Your task to perform on an android device: Open Yahoo.com Image 0: 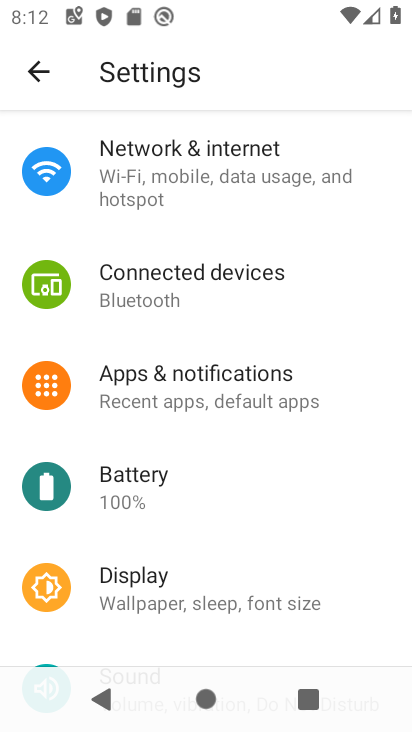
Step 0: press home button
Your task to perform on an android device: Open Yahoo.com Image 1: 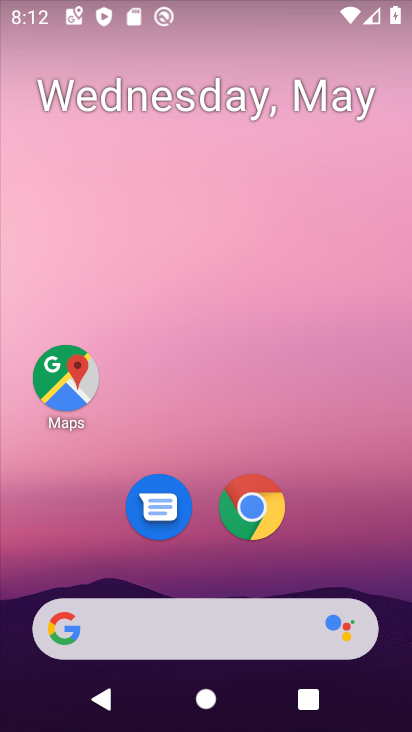
Step 1: click (258, 500)
Your task to perform on an android device: Open Yahoo.com Image 2: 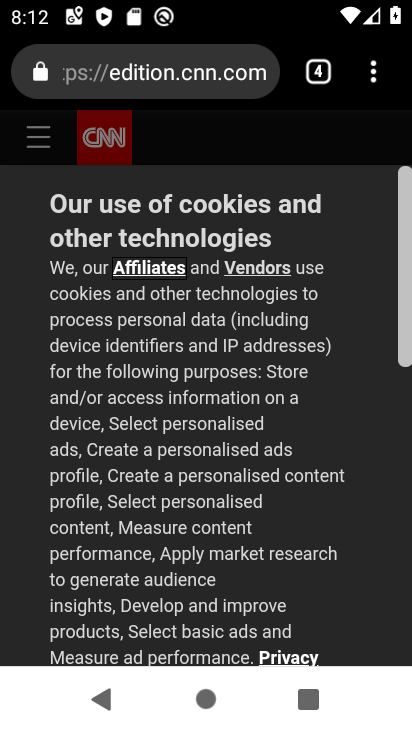
Step 2: click (382, 67)
Your task to perform on an android device: Open Yahoo.com Image 3: 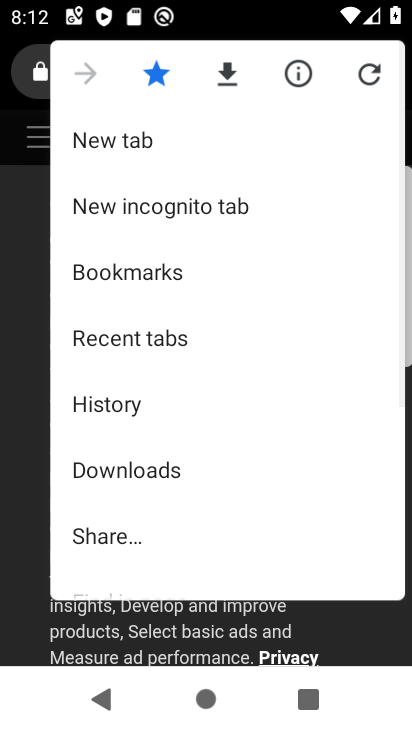
Step 3: click (134, 150)
Your task to perform on an android device: Open Yahoo.com Image 4: 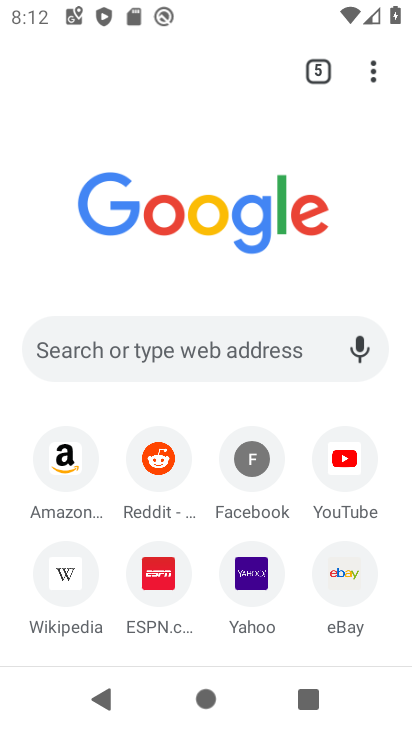
Step 4: click (242, 560)
Your task to perform on an android device: Open Yahoo.com Image 5: 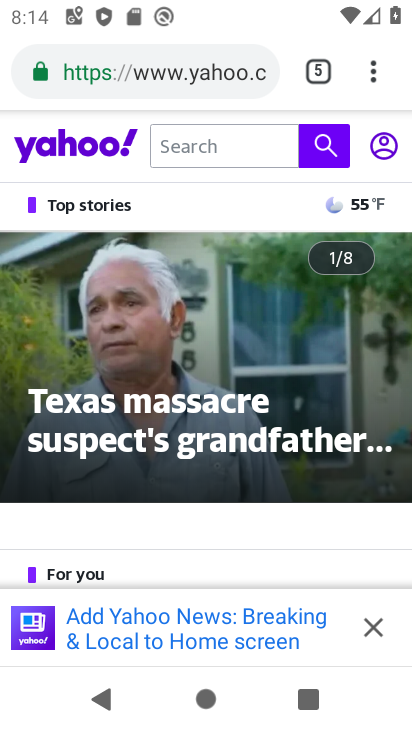
Step 5: task complete